Your task to perform on an android device: Open sound settings Image 0: 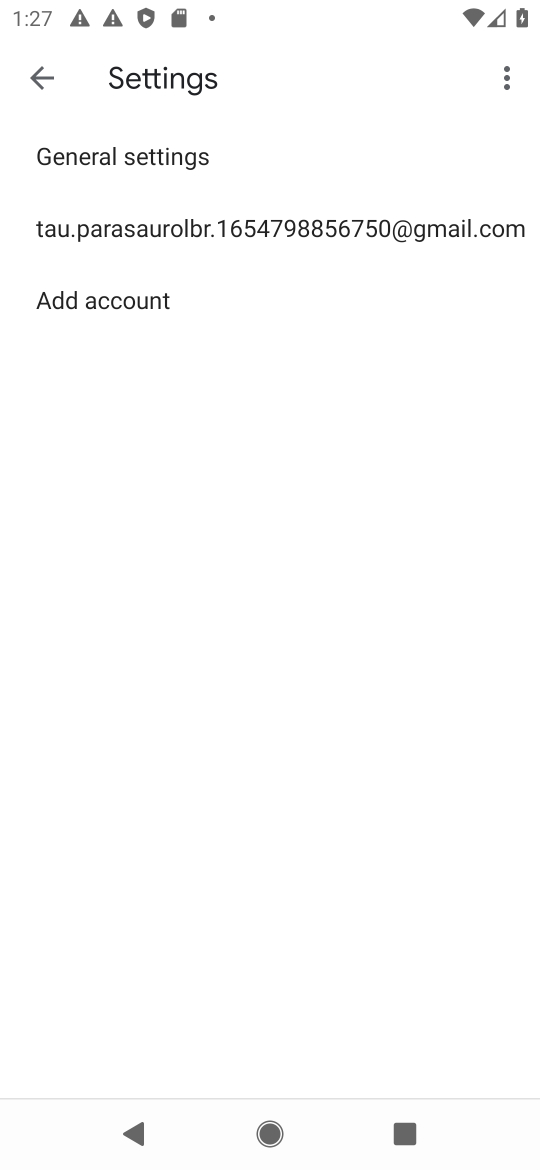
Step 0: press home button
Your task to perform on an android device: Open sound settings Image 1: 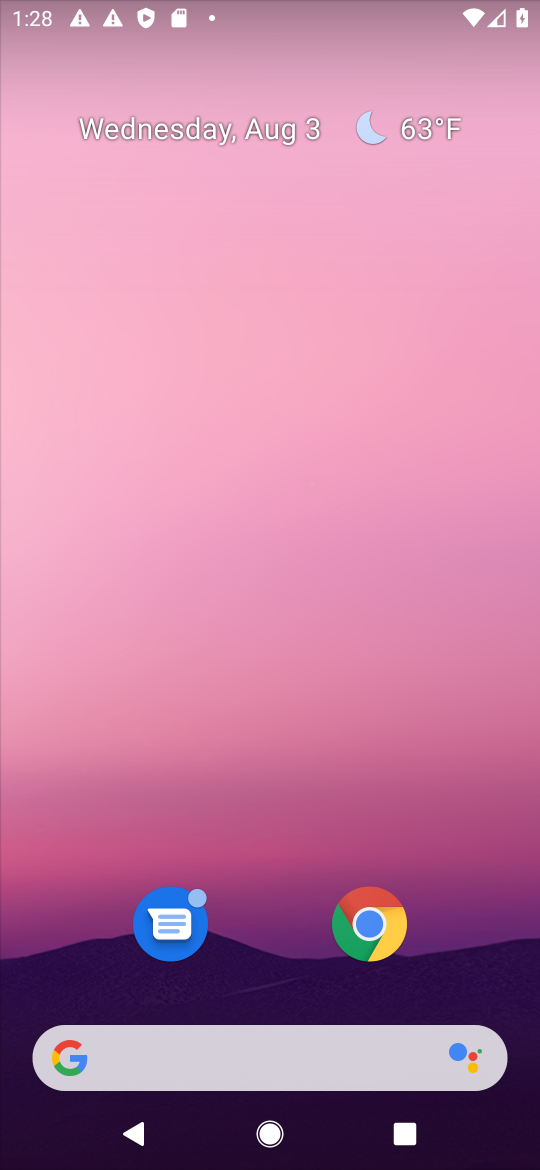
Step 1: drag from (289, 983) to (370, 1)
Your task to perform on an android device: Open sound settings Image 2: 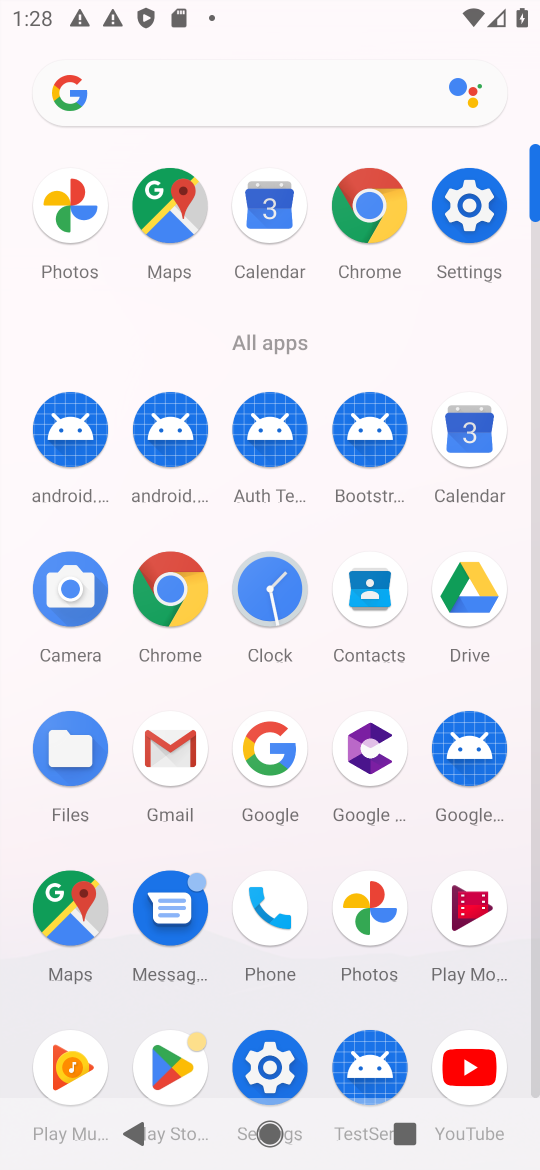
Step 2: click (469, 198)
Your task to perform on an android device: Open sound settings Image 3: 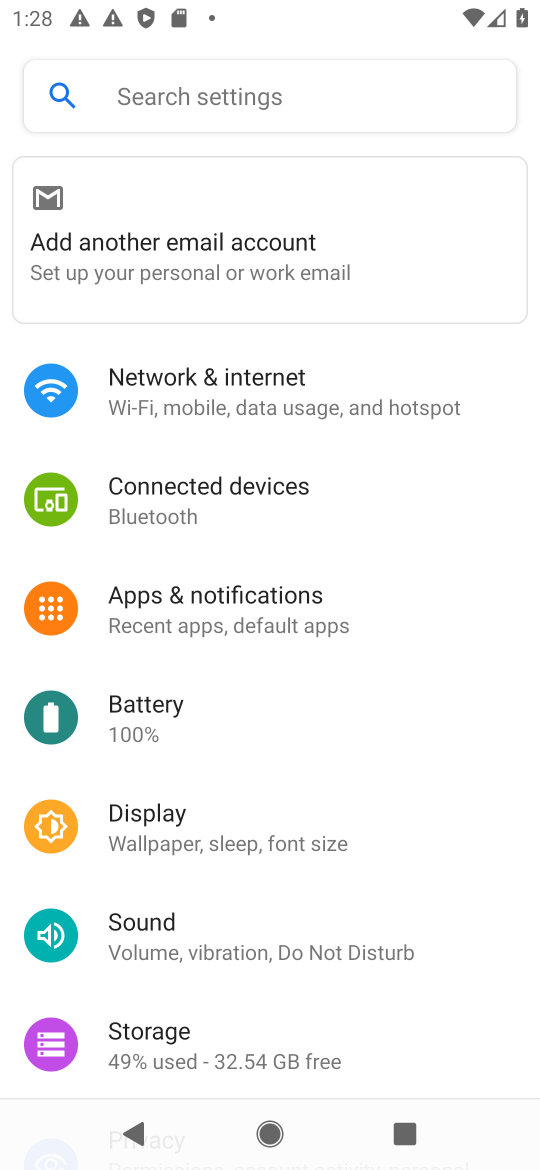
Step 3: click (206, 919)
Your task to perform on an android device: Open sound settings Image 4: 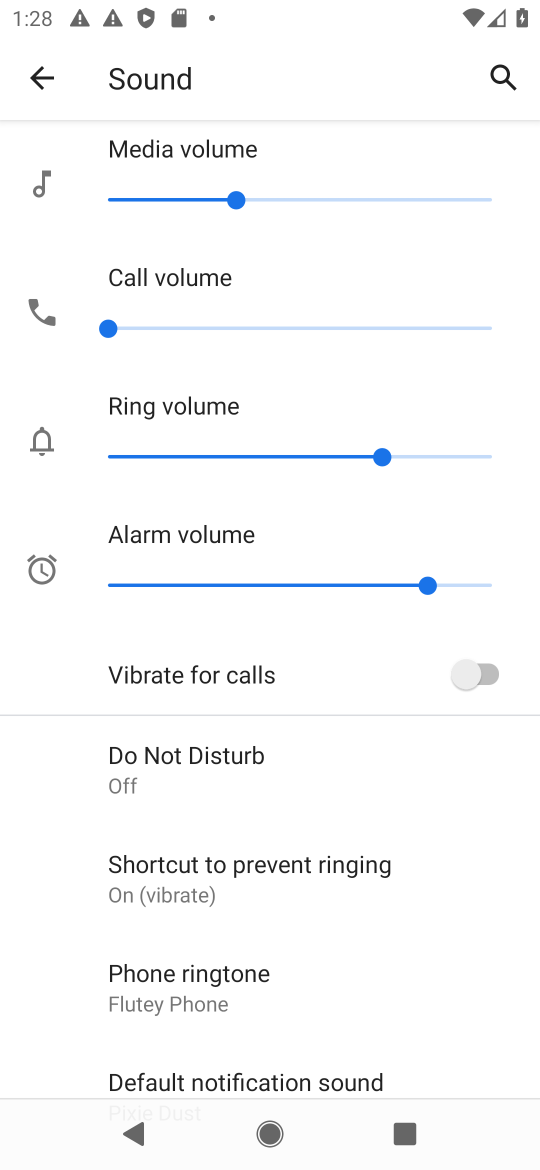
Step 4: drag from (239, 1018) to (268, 243)
Your task to perform on an android device: Open sound settings Image 5: 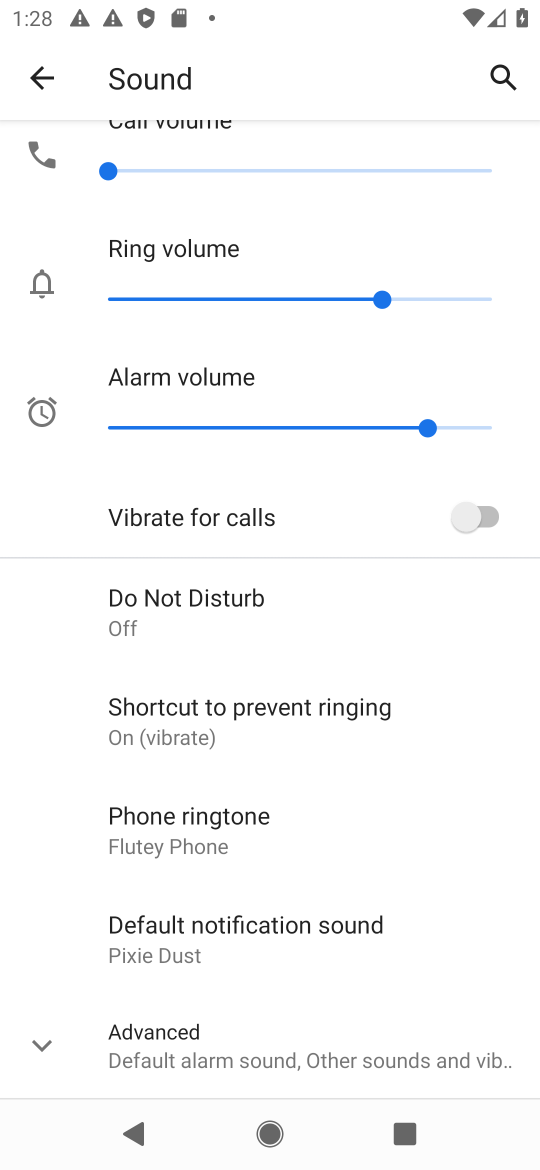
Step 5: click (43, 1041)
Your task to perform on an android device: Open sound settings Image 6: 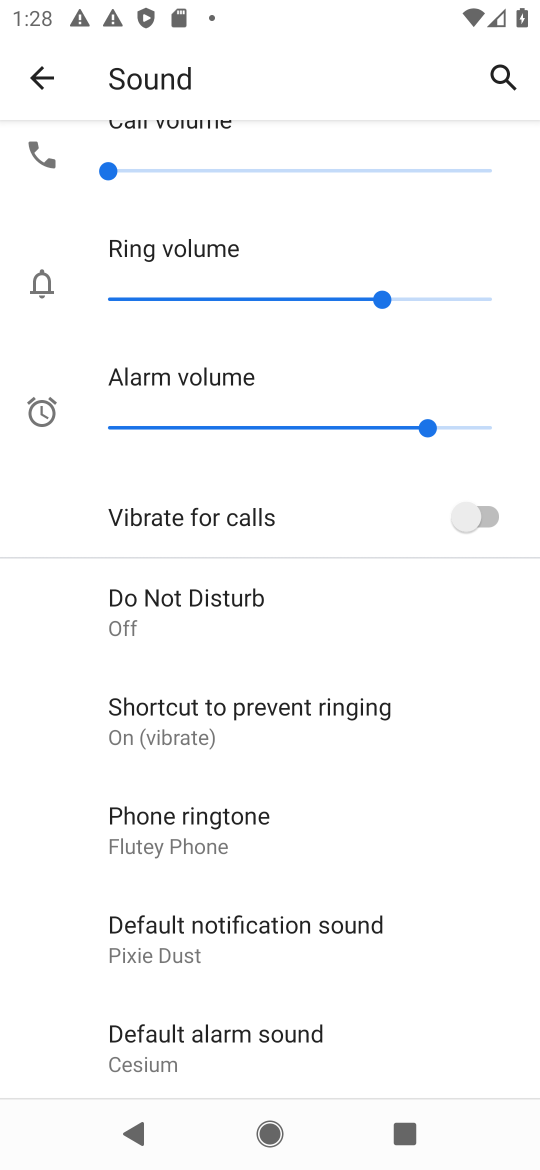
Step 6: task complete